Your task to perform on an android device: see creations saved in the google photos Image 0: 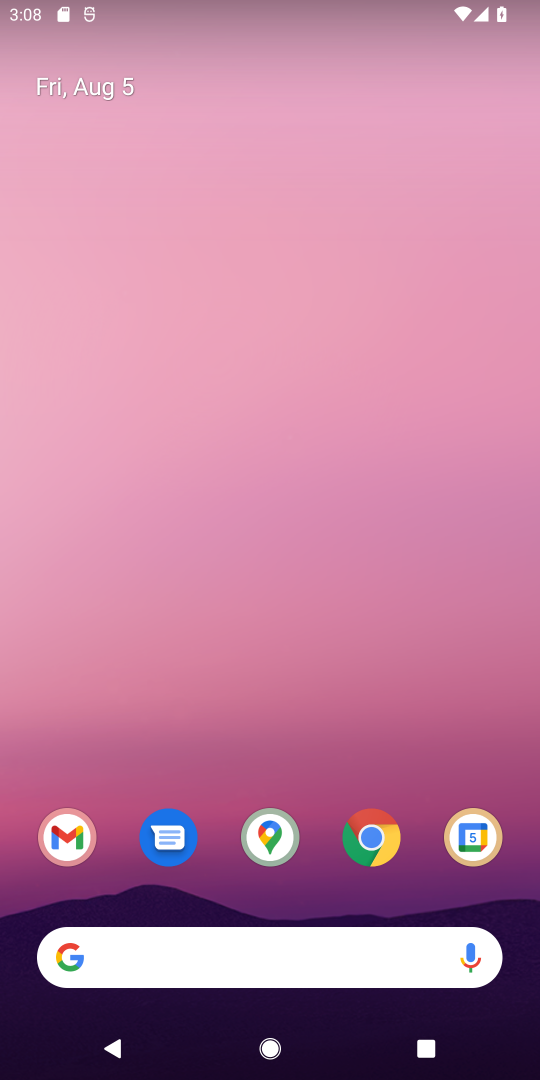
Step 0: drag from (290, 291) to (283, 19)
Your task to perform on an android device: see creations saved in the google photos Image 1: 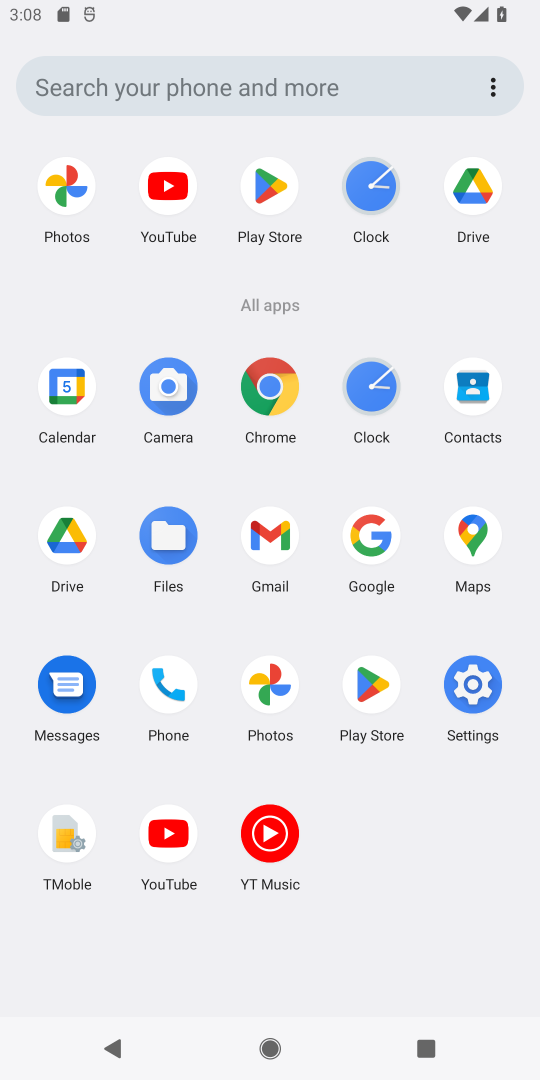
Step 1: click (267, 674)
Your task to perform on an android device: see creations saved in the google photos Image 2: 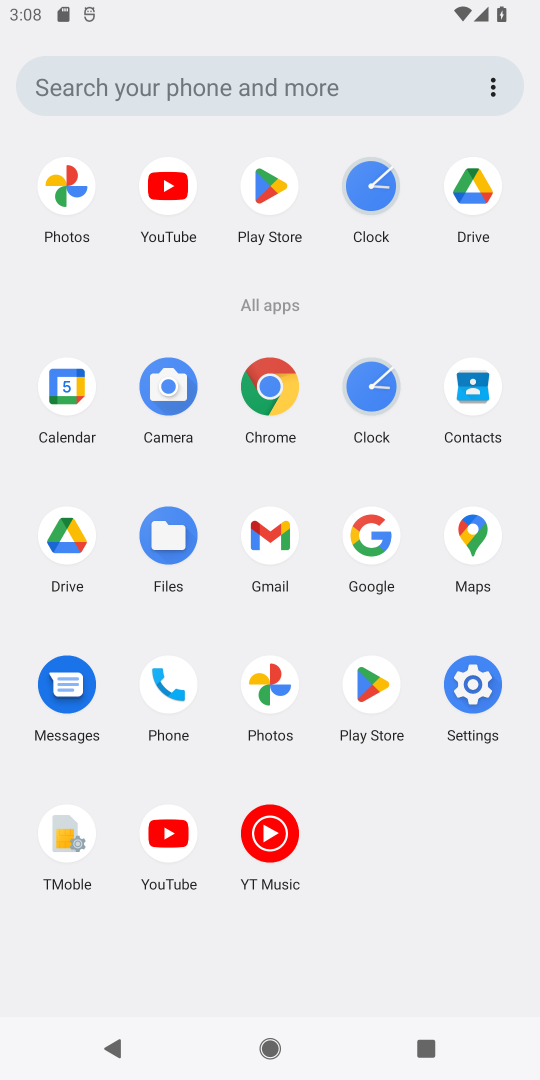
Step 2: click (266, 675)
Your task to perform on an android device: see creations saved in the google photos Image 3: 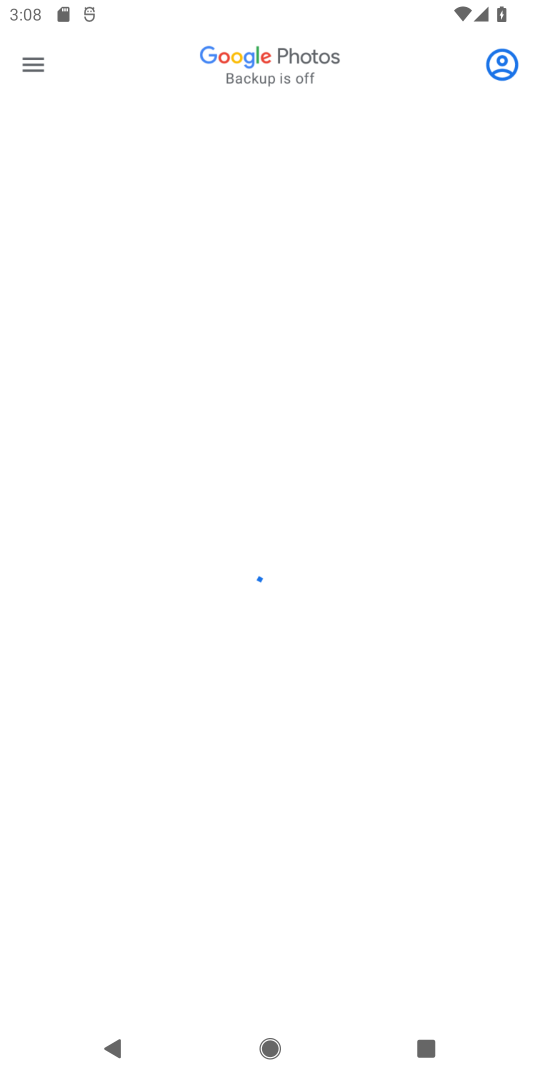
Step 3: click (273, 680)
Your task to perform on an android device: see creations saved in the google photos Image 4: 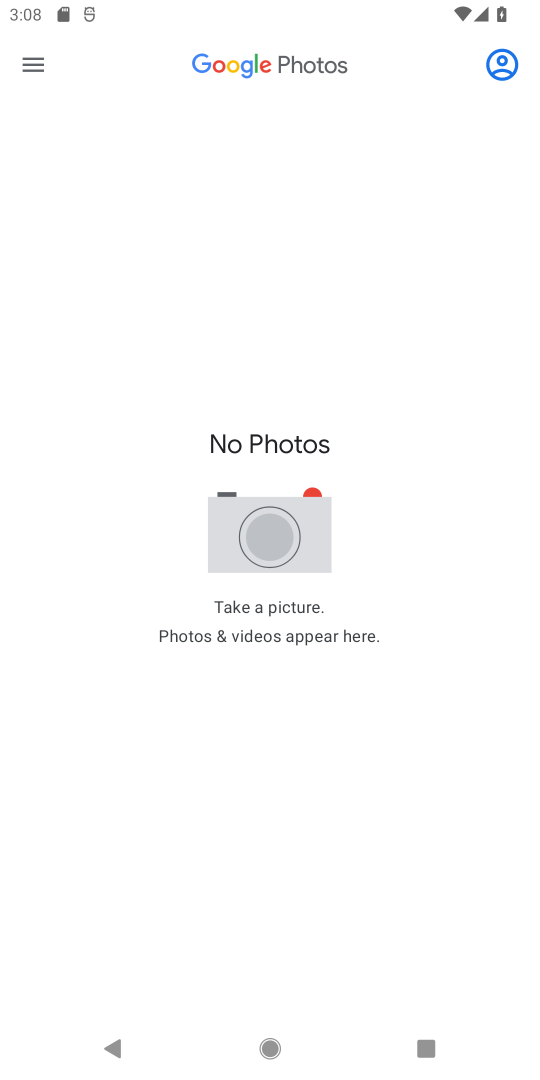
Step 4: click (27, 56)
Your task to perform on an android device: see creations saved in the google photos Image 5: 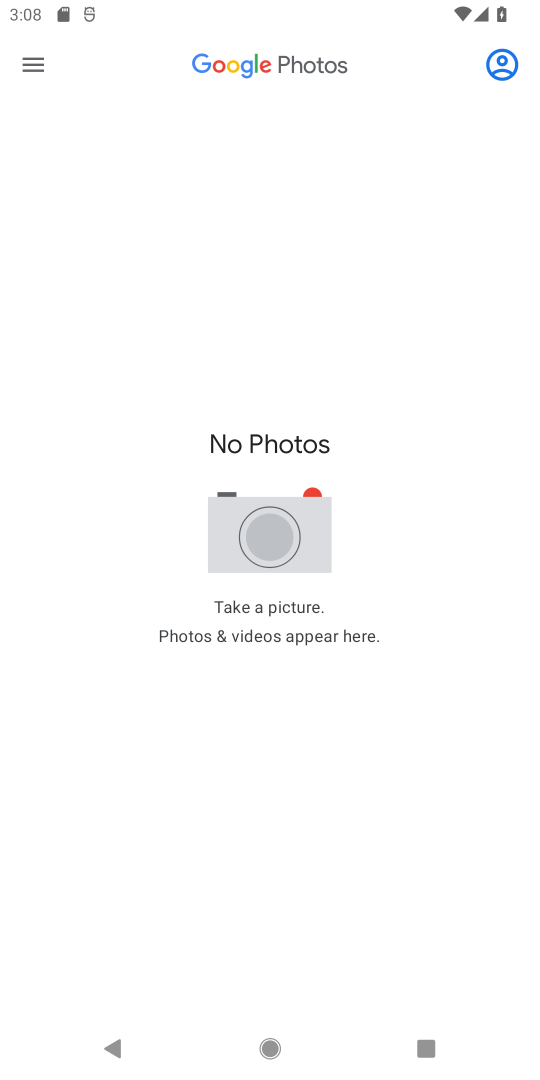
Step 5: task complete